Your task to perform on an android device: Open the map Image 0: 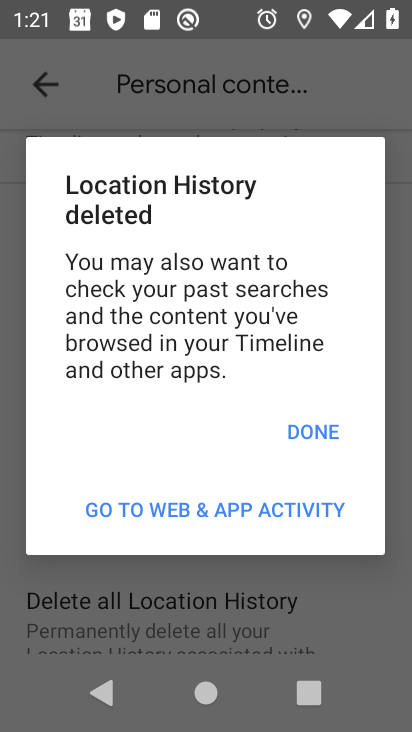
Step 0: press back button
Your task to perform on an android device: Open the map Image 1: 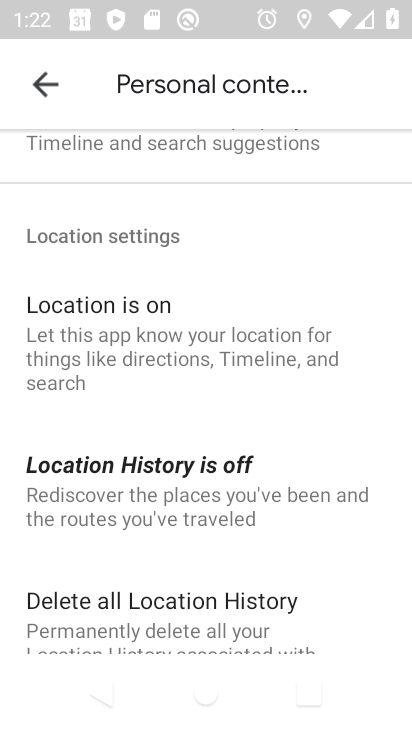
Step 1: task complete